Your task to perform on an android device: turn vacation reply on in the gmail app Image 0: 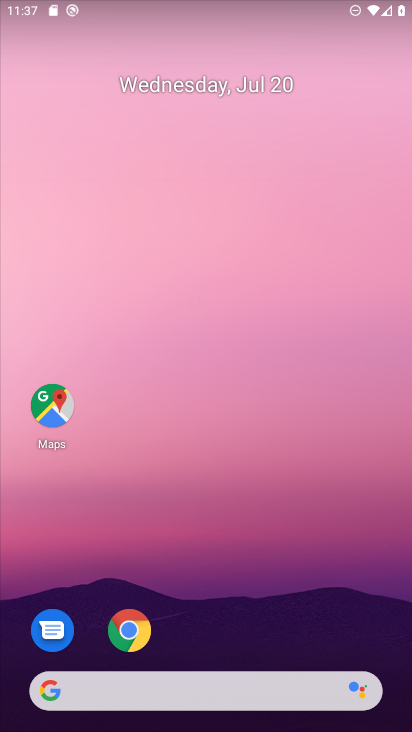
Step 0: drag from (214, 656) to (272, 111)
Your task to perform on an android device: turn vacation reply on in the gmail app Image 1: 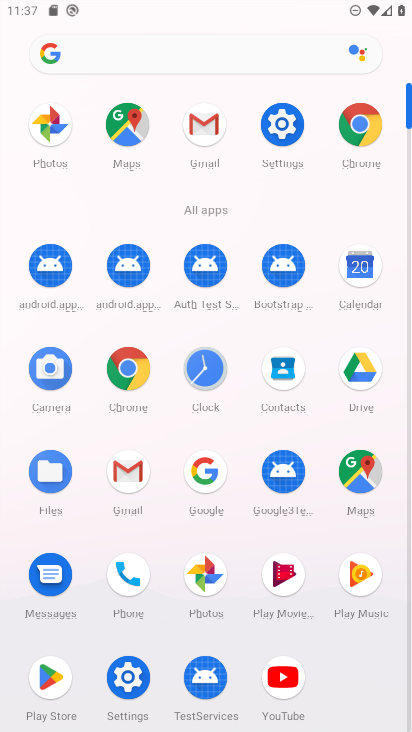
Step 1: click (137, 480)
Your task to perform on an android device: turn vacation reply on in the gmail app Image 2: 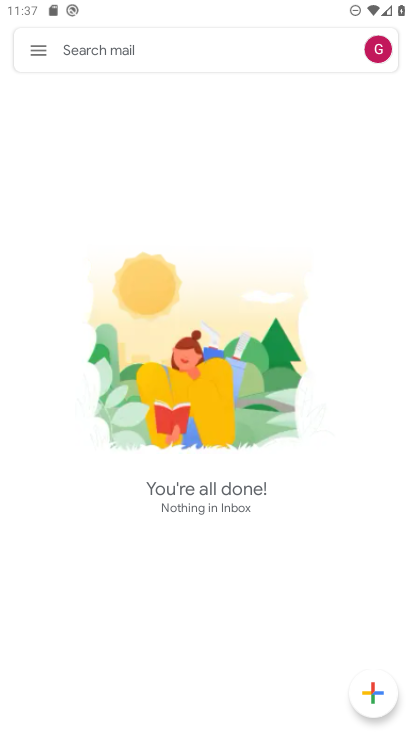
Step 2: click (45, 50)
Your task to perform on an android device: turn vacation reply on in the gmail app Image 3: 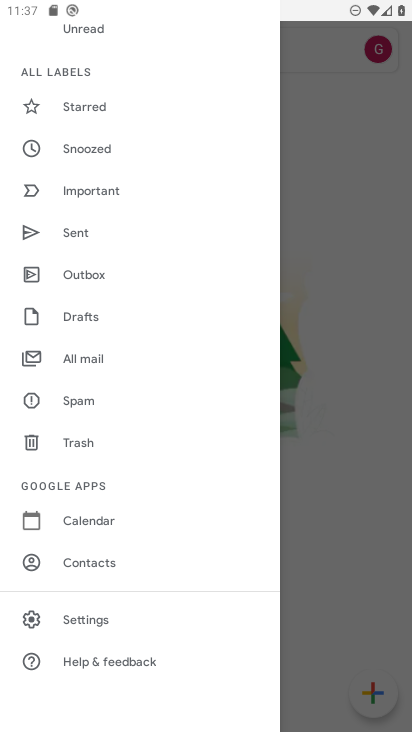
Step 3: click (77, 625)
Your task to perform on an android device: turn vacation reply on in the gmail app Image 4: 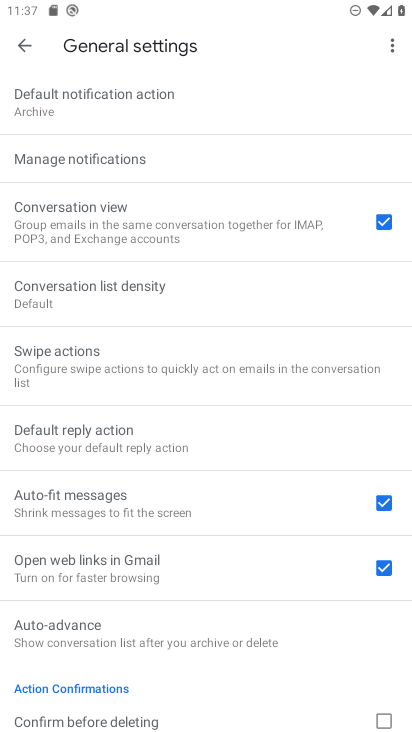
Step 4: drag from (162, 624) to (180, 271)
Your task to perform on an android device: turn vacation reply on in the gmail app Image 5: 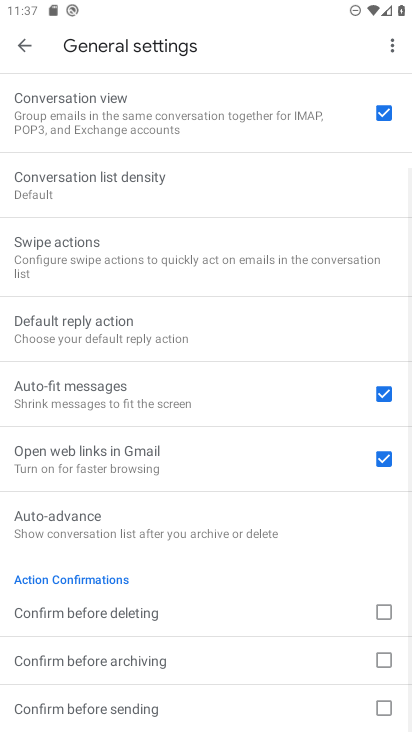
Step 5: drag from (187, 637) to (209, 410)
Your task to perform on an android device: turn vacation reply on in the gmail app Image 6: 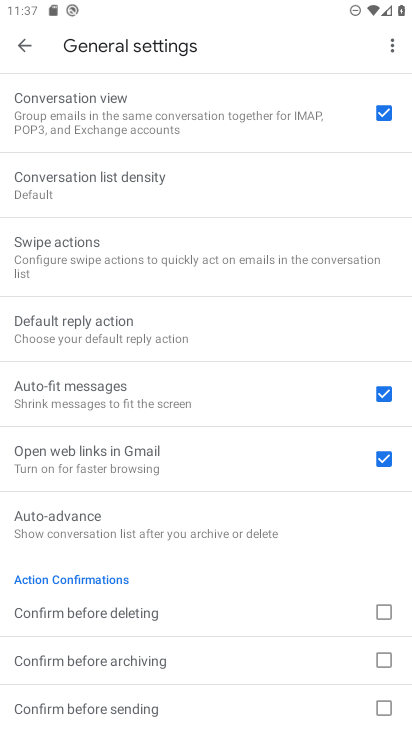
Step 6: click (29, 41)
Your task to perform on an android device: turn vacation reply on in the gmail app Image 7: 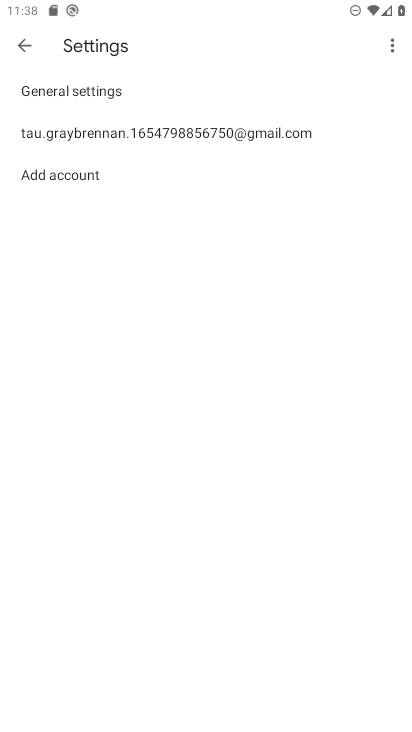
Step 7: click (87, 125)
Your task to perform on an android device: turn vacation reply on in the gmail app Image 8: 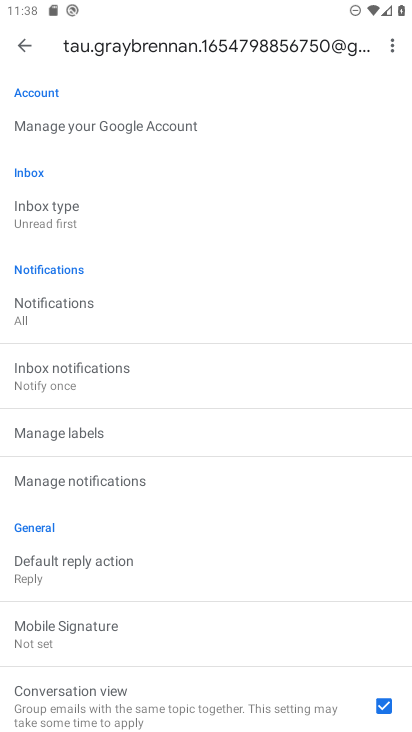
Step 8: drag from (147, 604) to (174, 214)
Your task to perform on an android device: turn vacation reply on in the gmail app Image 9: 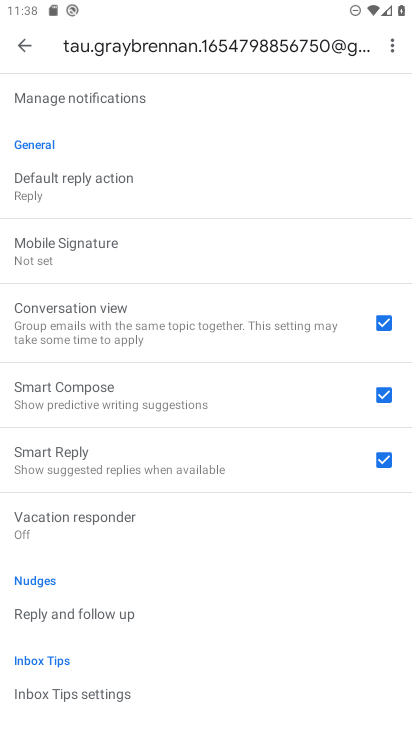
Step 9: click (105, 525)
Your task to perform on an android device: turn vacation reply on in the gmail app Image 10: 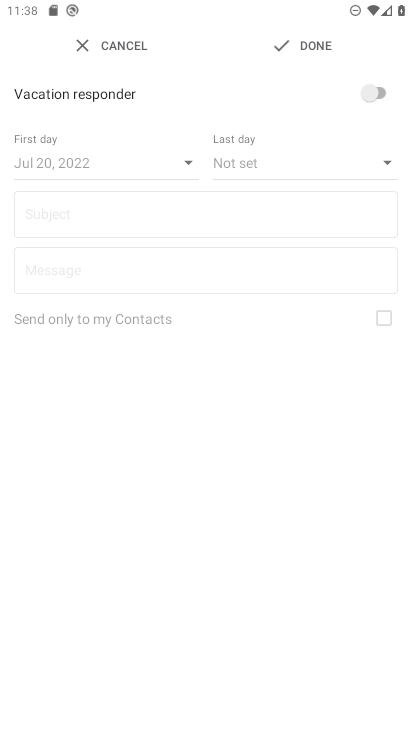
Step 10: click (366, 93)
Your task to perform on an android device: turn vacation reply on in the gmail app Image 11: 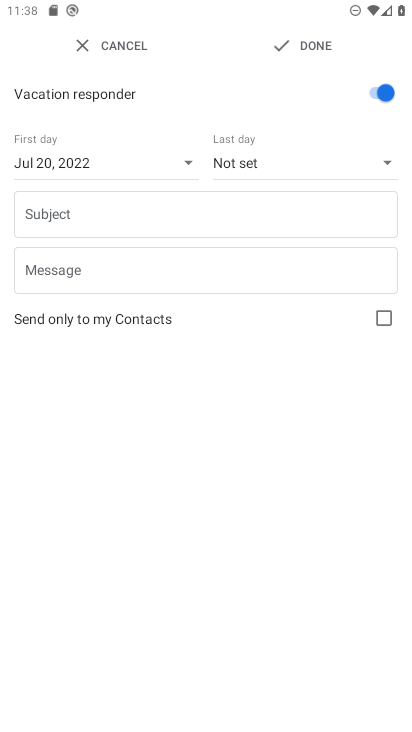
Step 11: task complete